Your task to perform on an android device: uninstall "Google Calendar" Image 0: 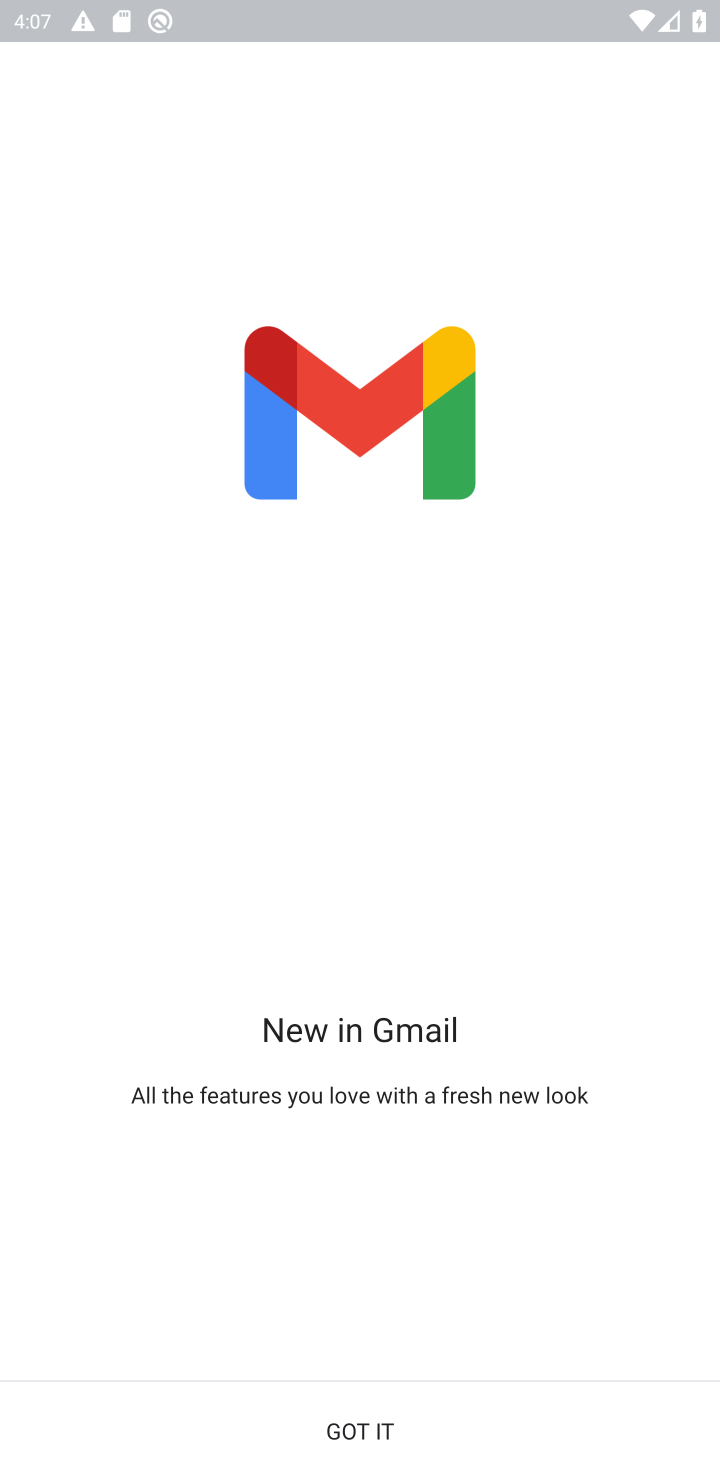
Step 0: press home button
Your task to perform on an android device: uninstall "Google Calendar" Image 1: 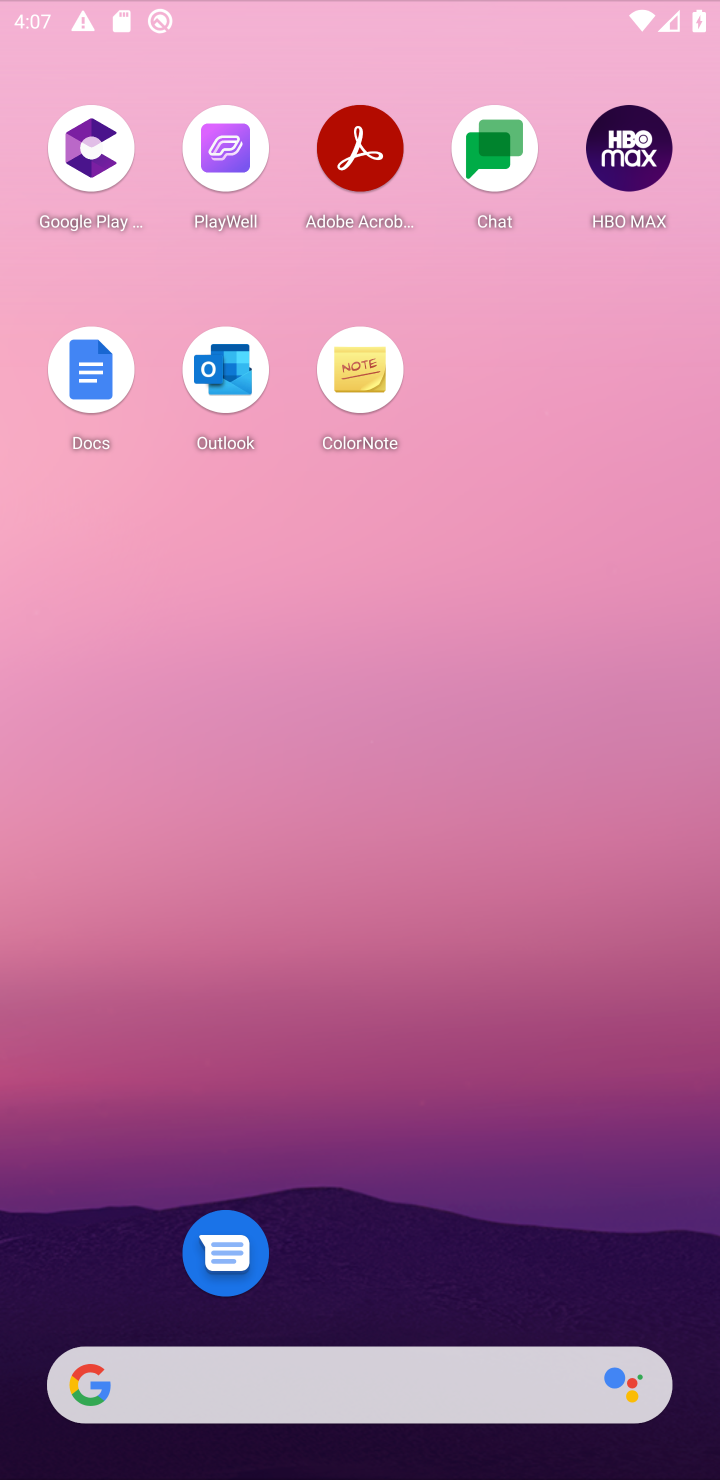
Step 1: drag from (321, 1008) to (330, 389)
Your task to perform on an android device: uninstall "Google Calendar" Image 2: 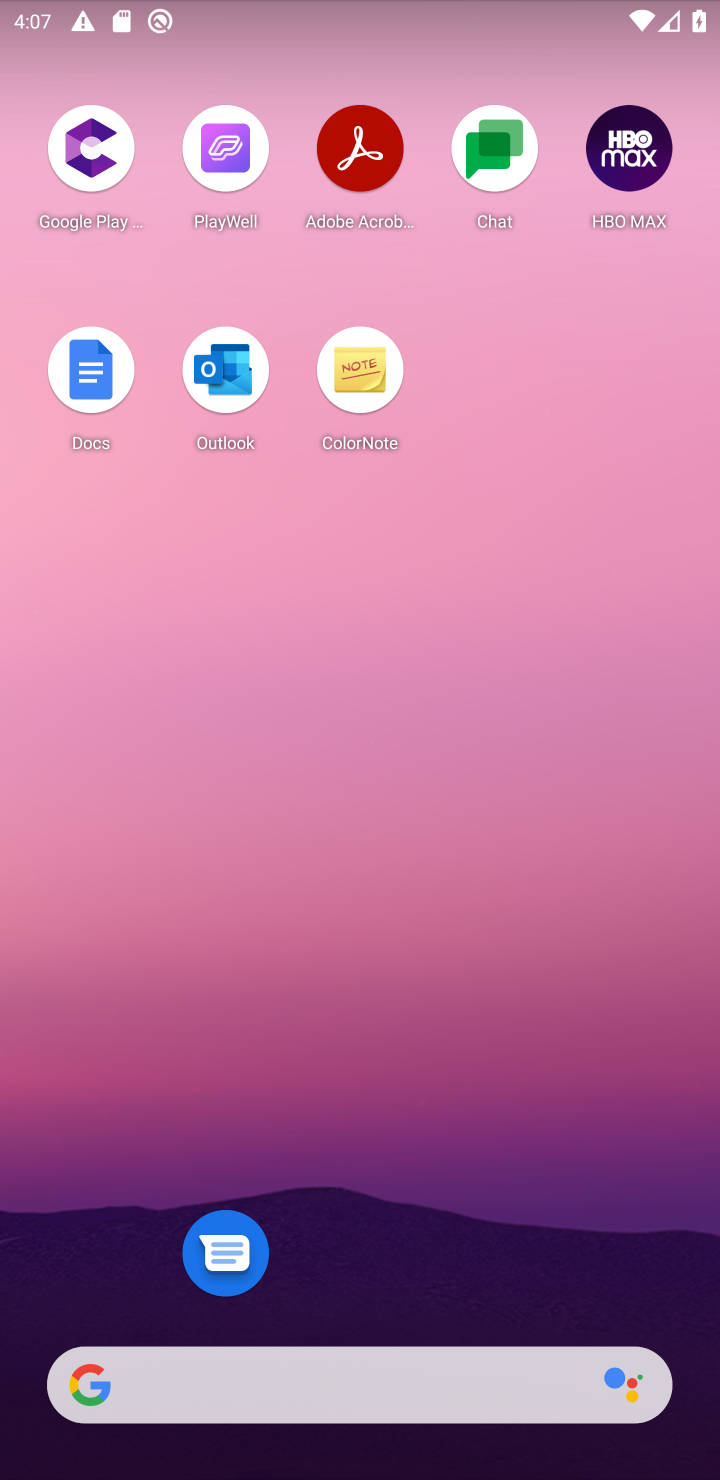
Step 2: drag from (344, 1357) to (386, 358)
Your task to perform on an android device: uninstall "Google Calendar" Image 3: 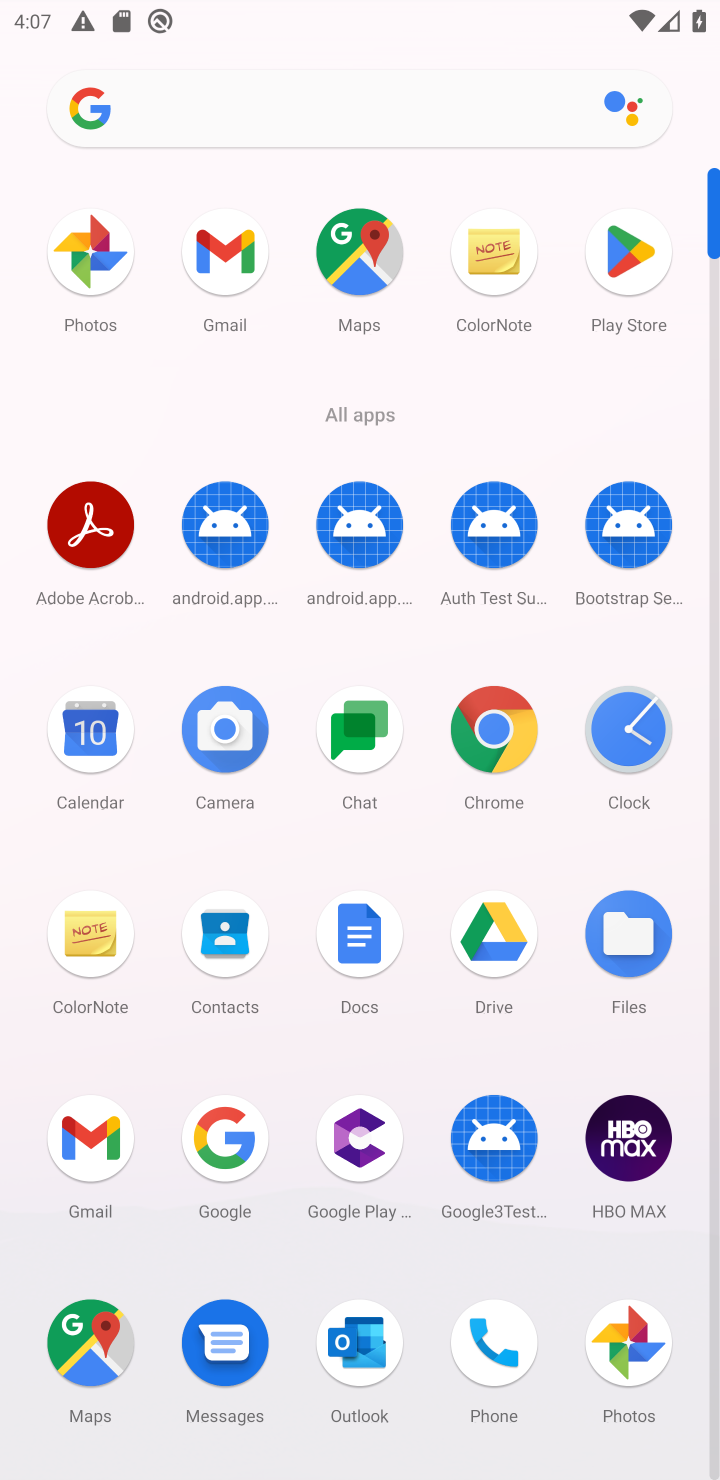
Step 3: click (636, 259)
Your task to perform on an android device: uninstall "Google Calendar" Image 4: 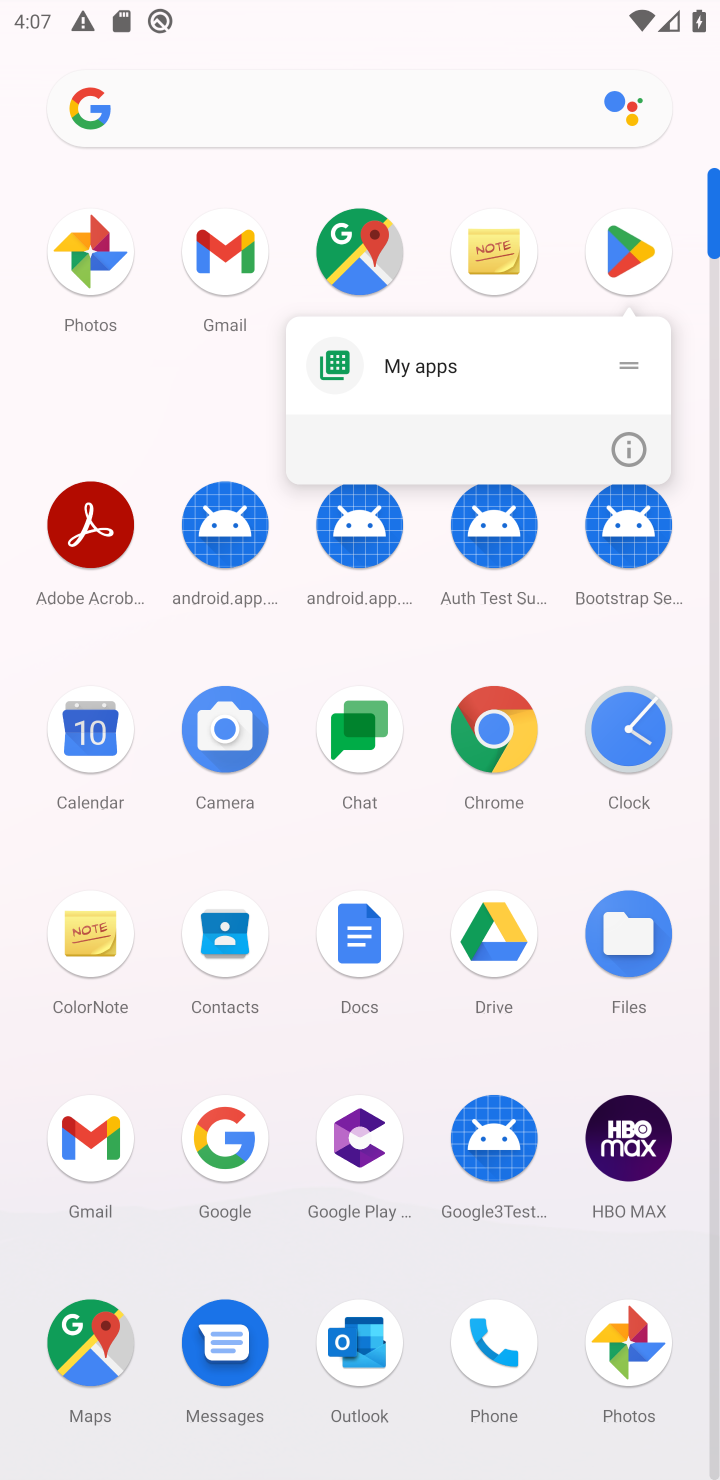
Step 4: click (636, 259)
Your task to perform on an android device: uninstall "Google Calendar" Image 5: 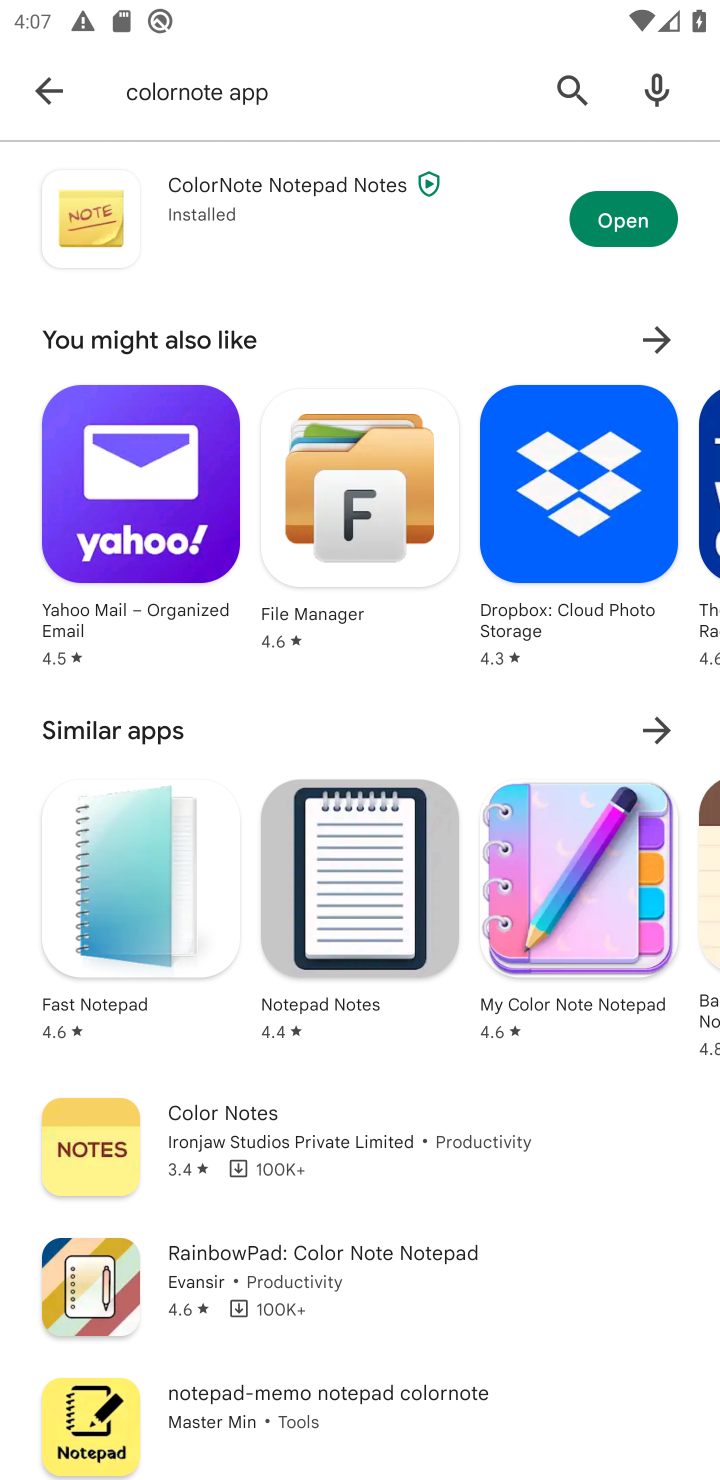
Step 5: click (53, 83)
Your task to perform on an android device: uninstall "Google Calendar" Image 6: 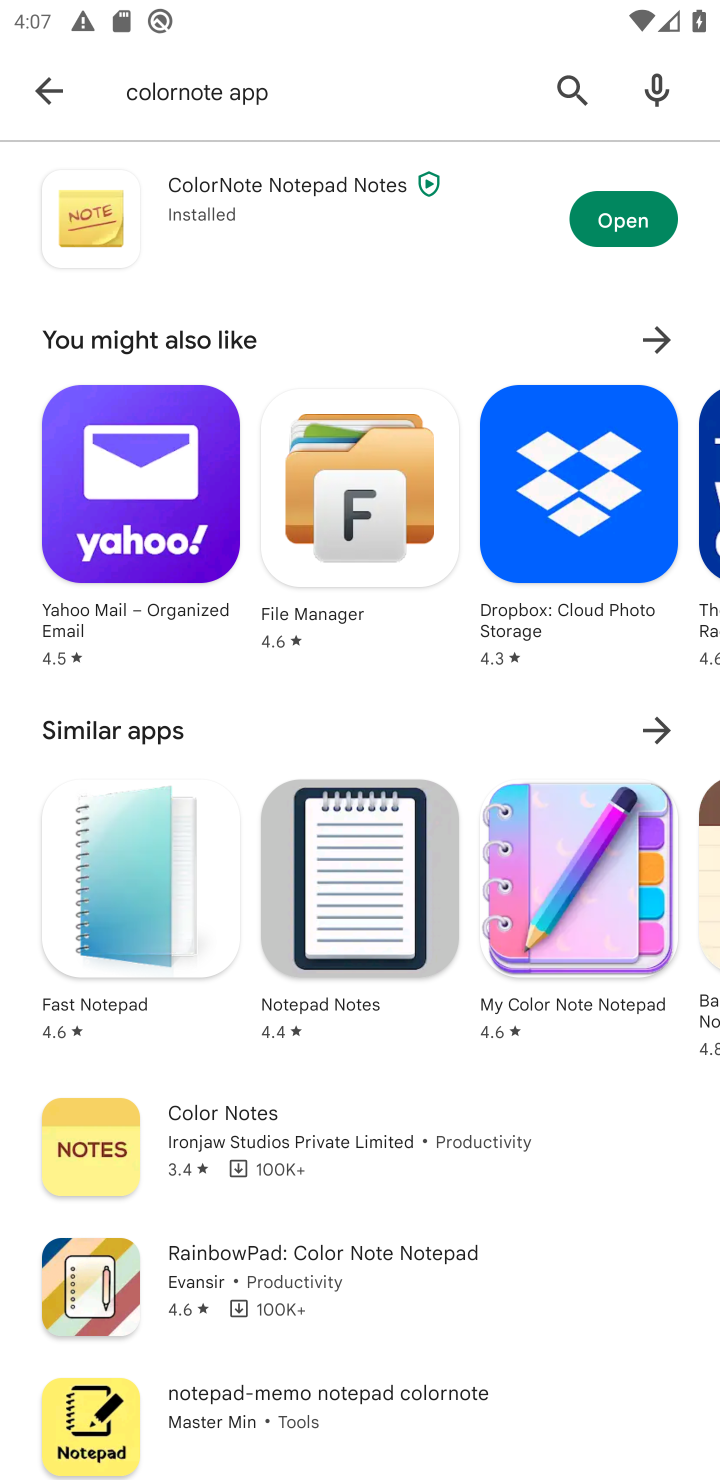
Step 6: click (61, 75)
Your task to perform on an android device: uninstall "Google Calendar" Image 7: 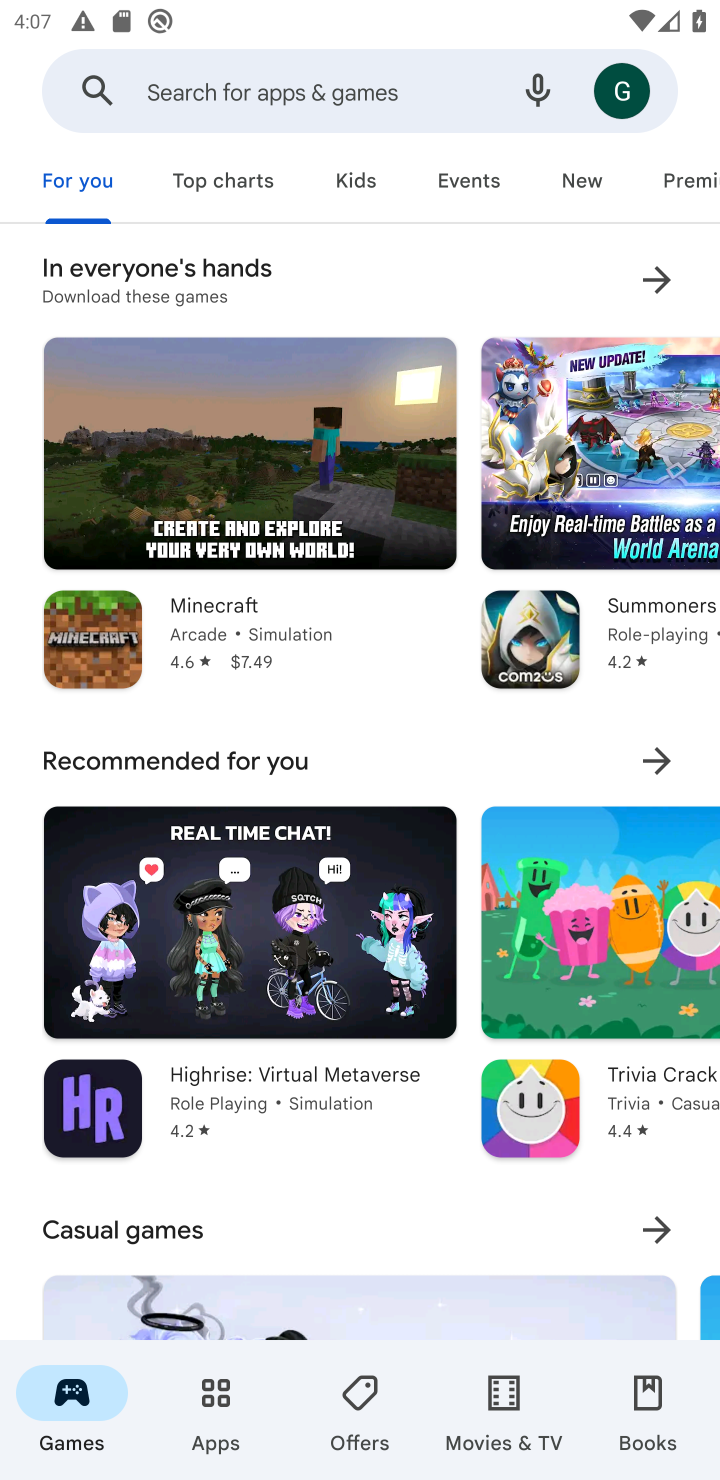
Step 7: click (267, 83)
Your task to perform on an android device: uninstall "Google Calendar" Image 8: 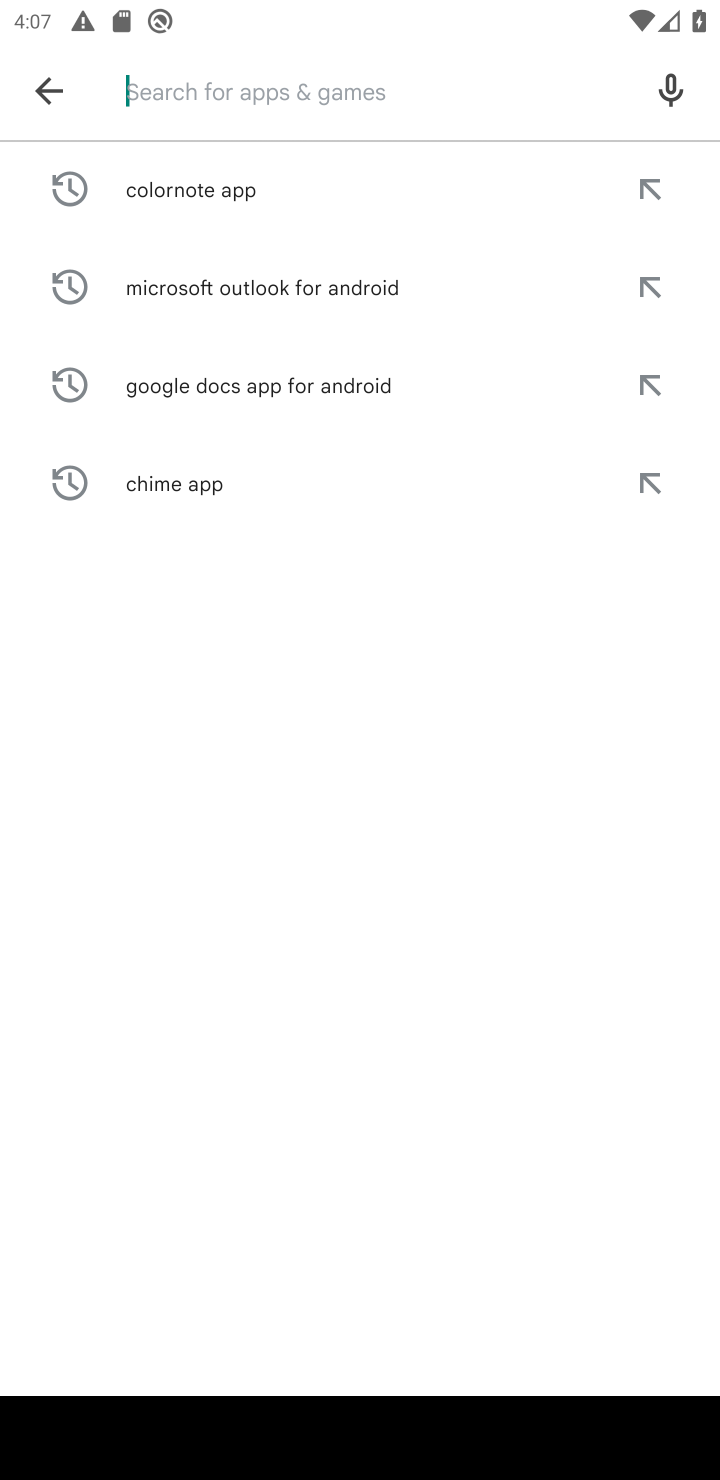
Step 8: click (298, 86)
Your task to perform on an android device: uninstall "Google Calendar" Image 9: 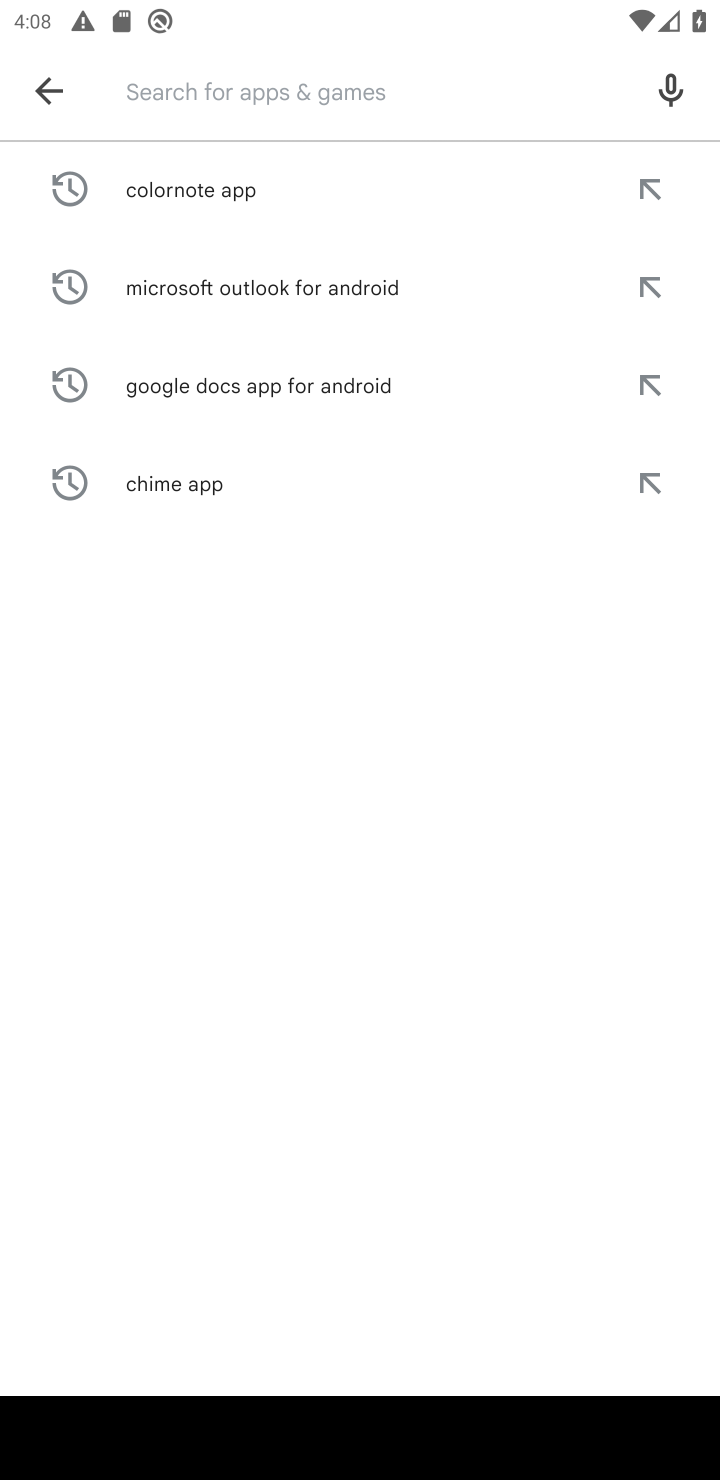
Step 9: type "calender"
Your task to perform on an android device: uninstall "Google Calendar" Image 10: 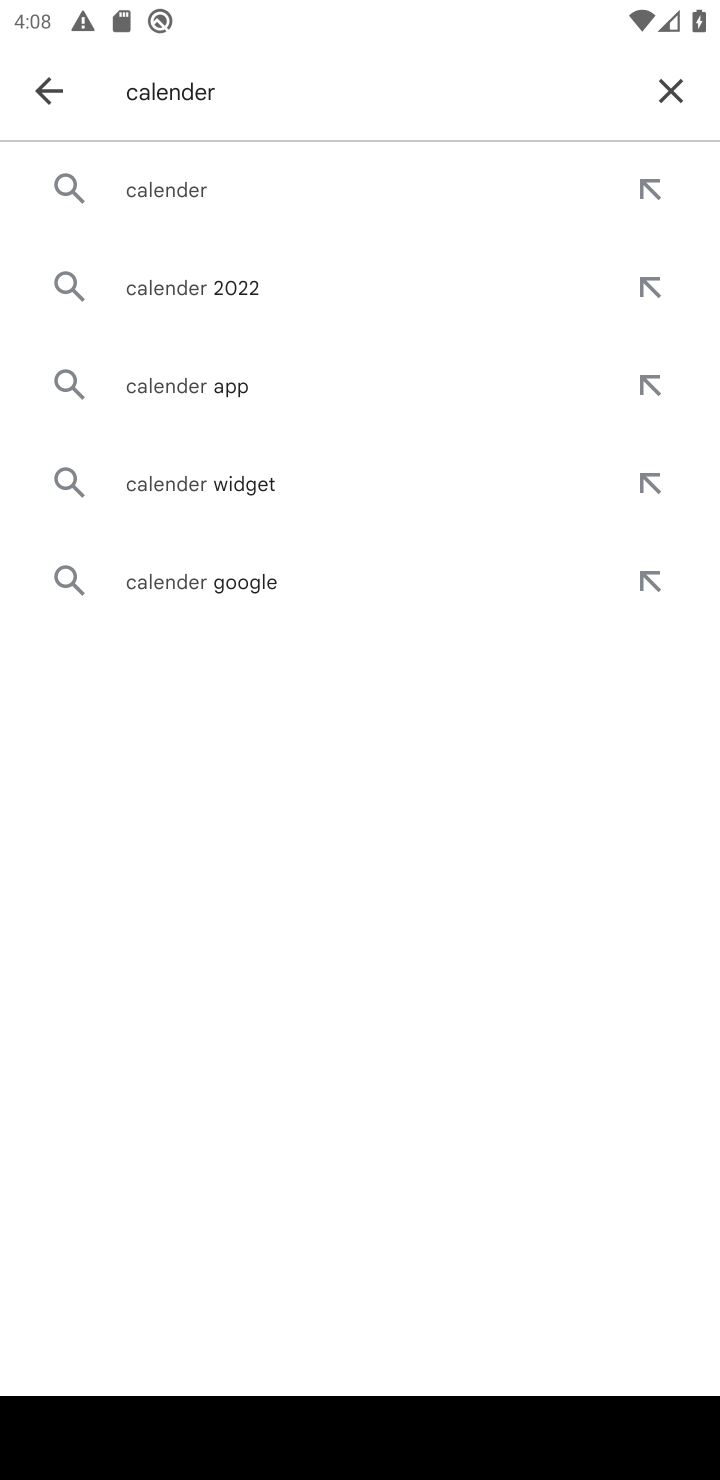
Step 10: click (214, 174)
Your task to perform on an android device: uninstall "Google Calendar" Image 11: 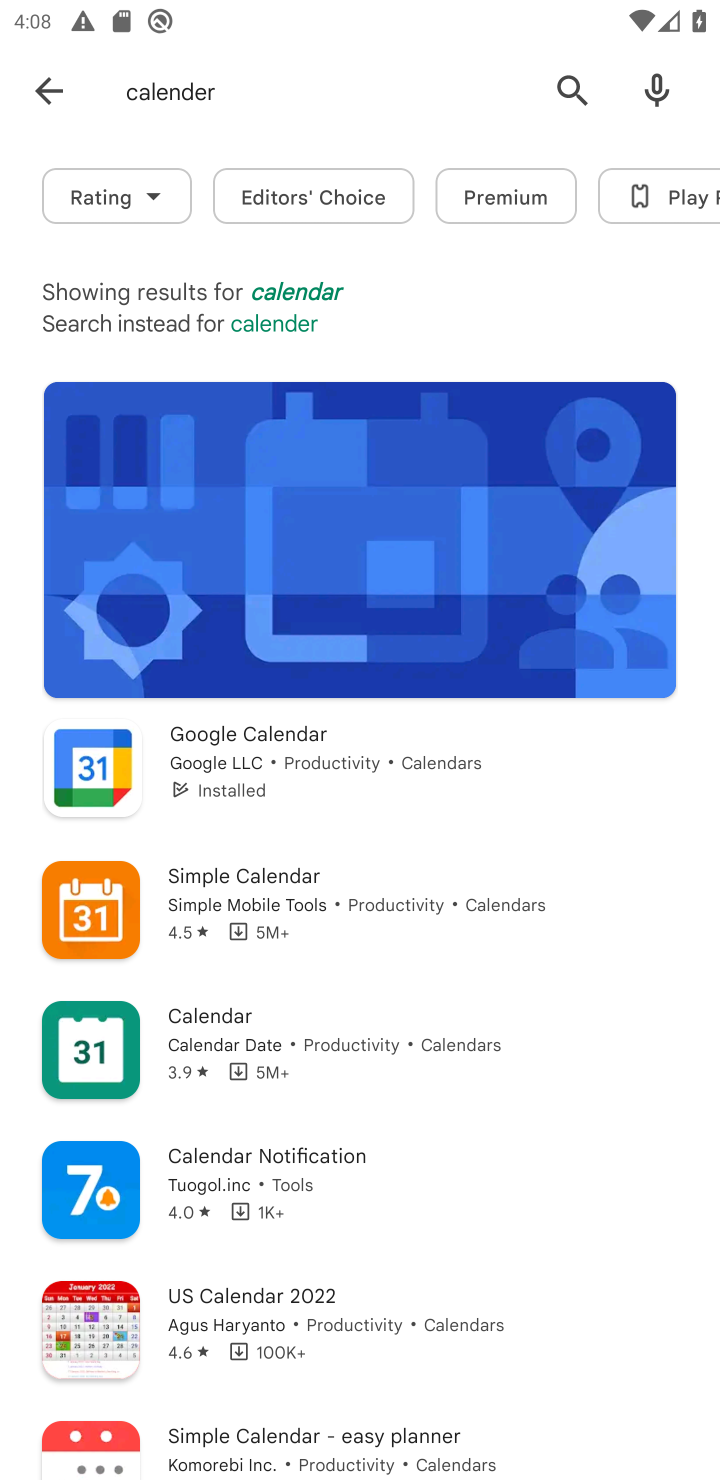
Step 11: click (280, 767)
Your task to perform on an android device: uninstall "Google Calendar" Image 12: 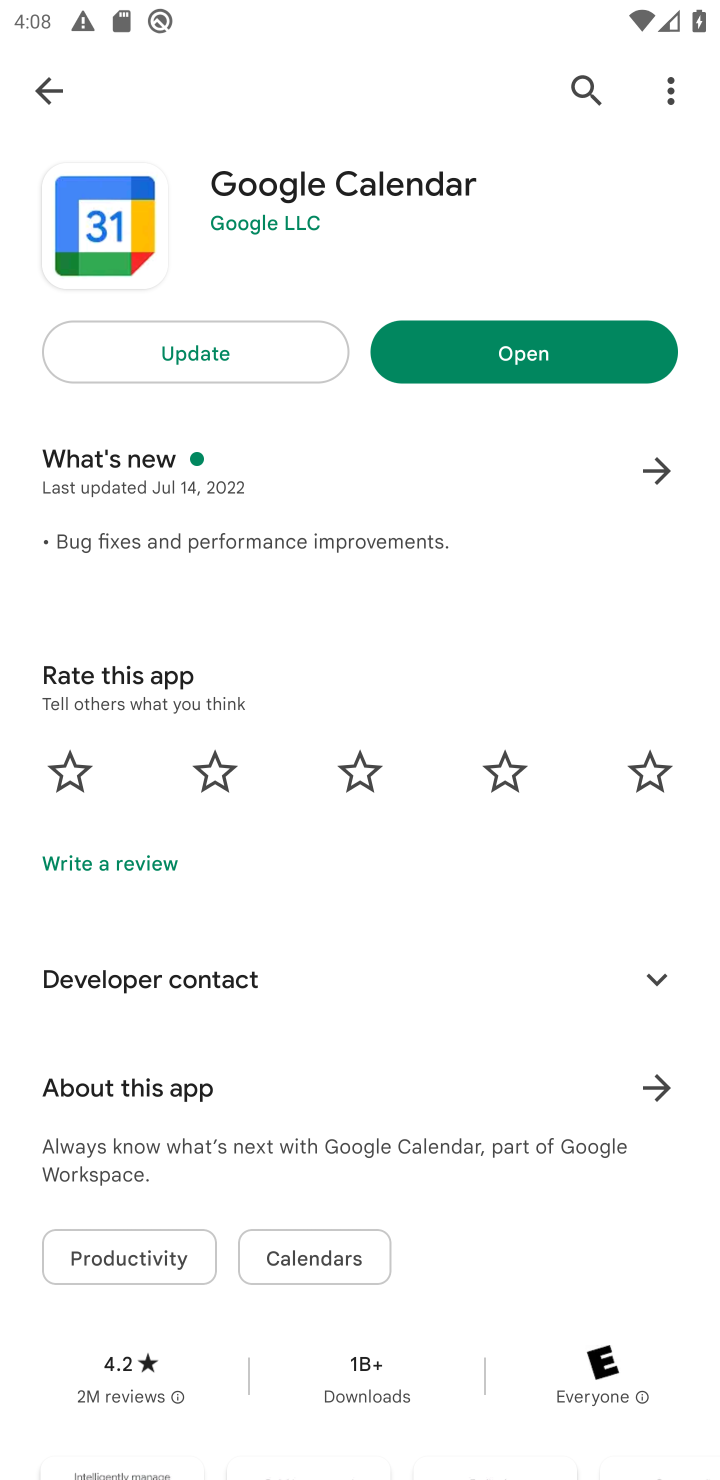
Step 12: click (228, 348)
Your task to perform on an android device: uninstall "Google Calendar" Image 13: 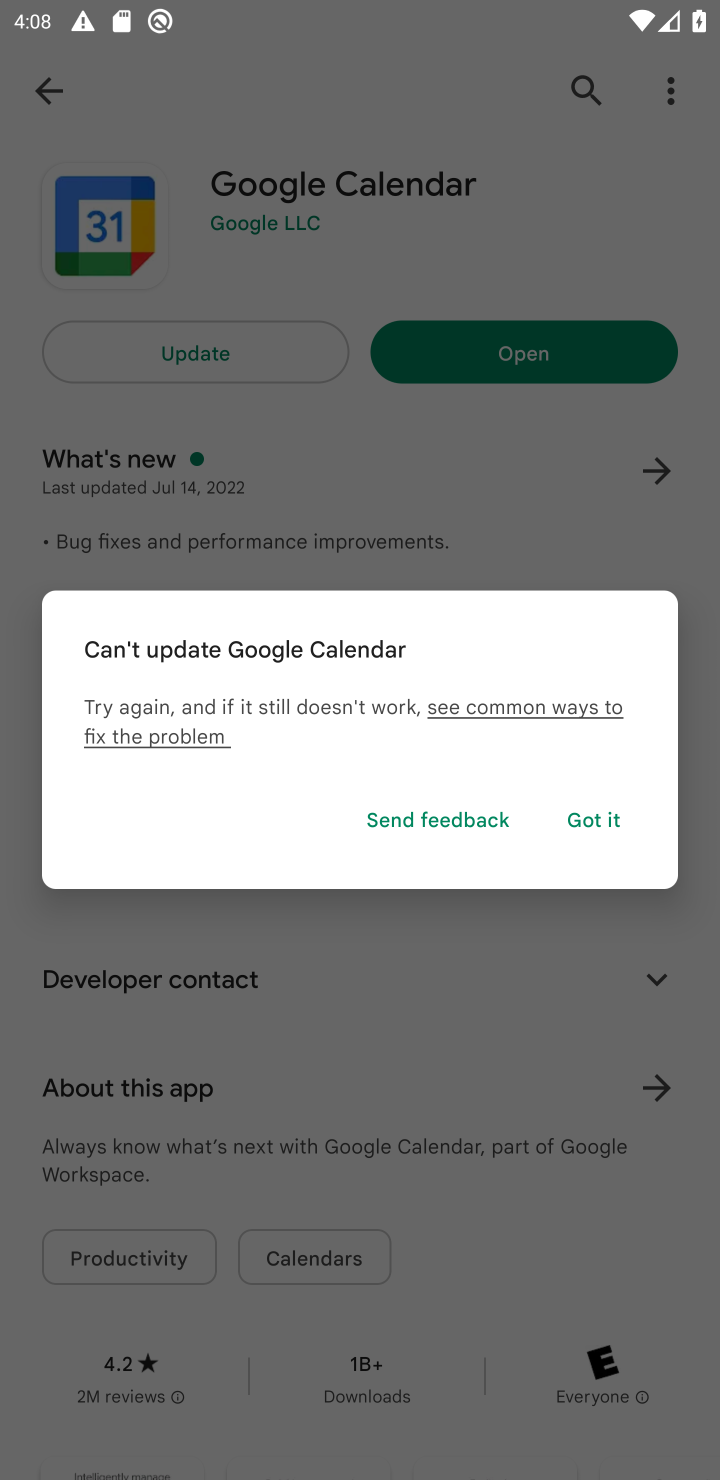
Step 13: click (572, 806)
Your task to perform on an android device: uninstall "Google Calendar" Image 14: 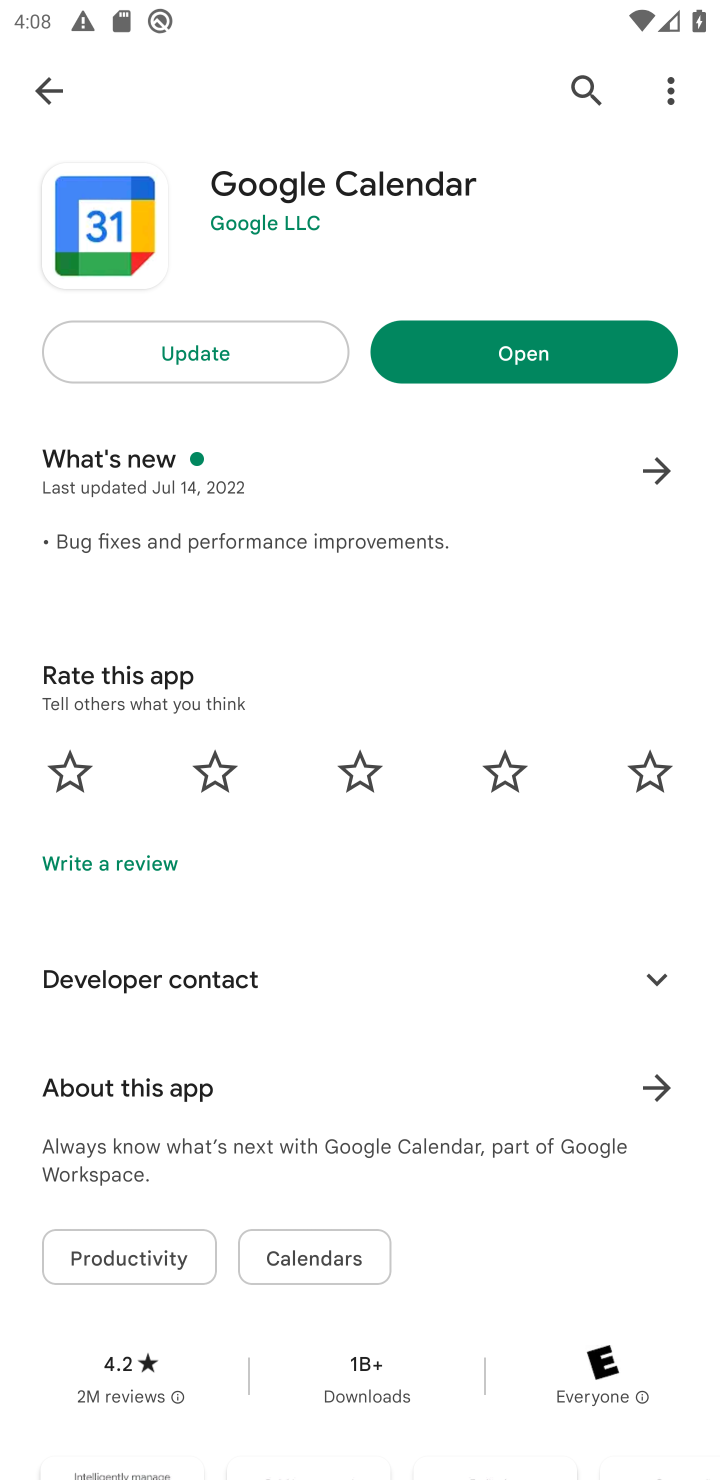
Step 14: click (263, 359)
Your task to perform on an android device: uninstall "Google Calendar" Image 15: 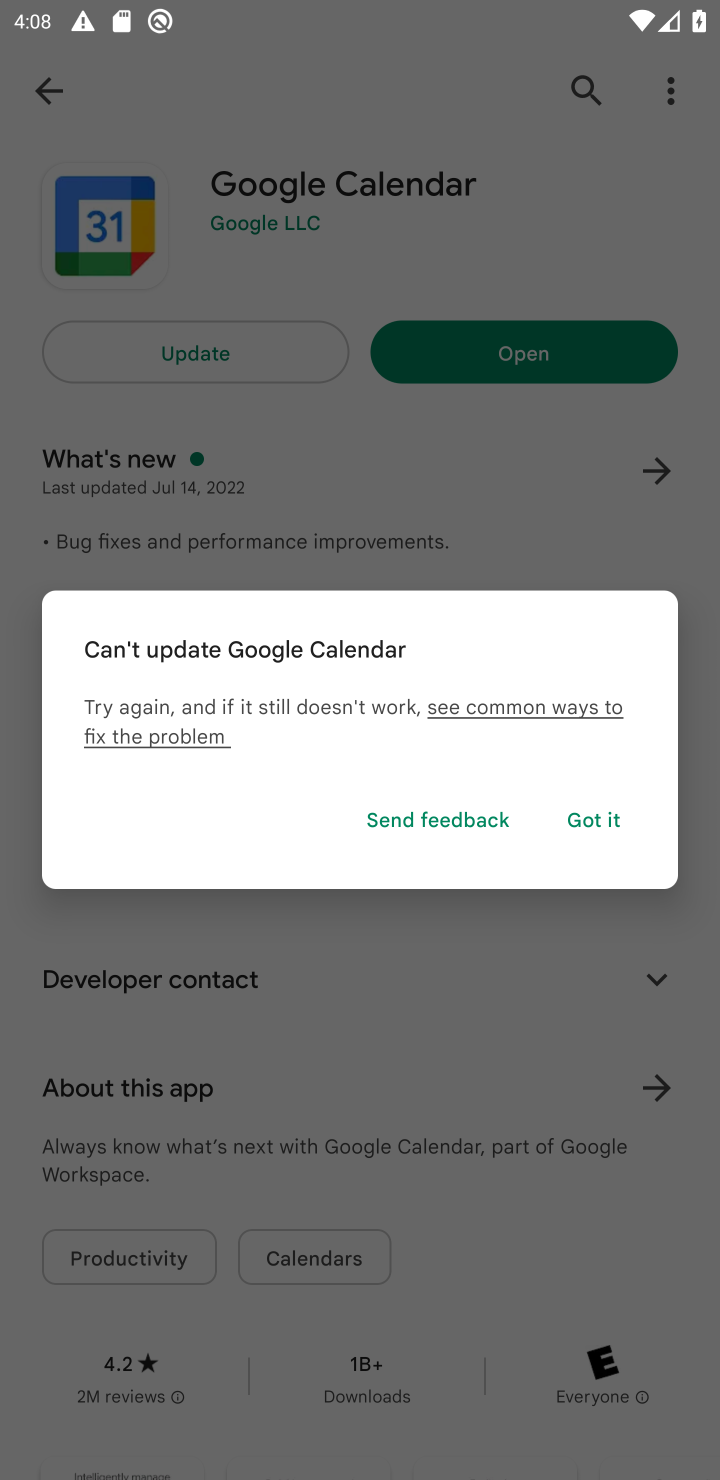
Step 15: click (475, 807)
Your task to perform on an android device: uninstall "Google Calendar" Image 16: 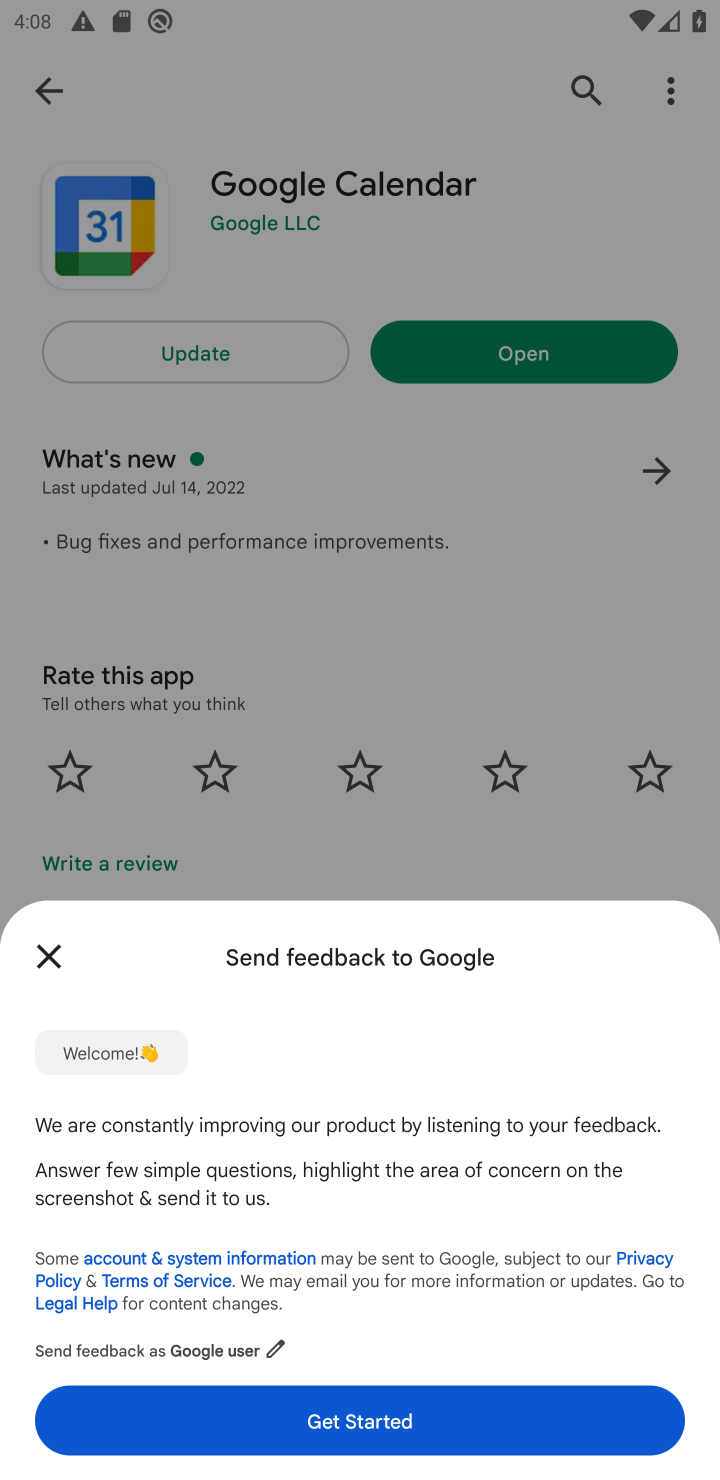
Step 16: click (48, 965)
Your task to perform on an android device: uninstall "Google Calendar" Image 17: 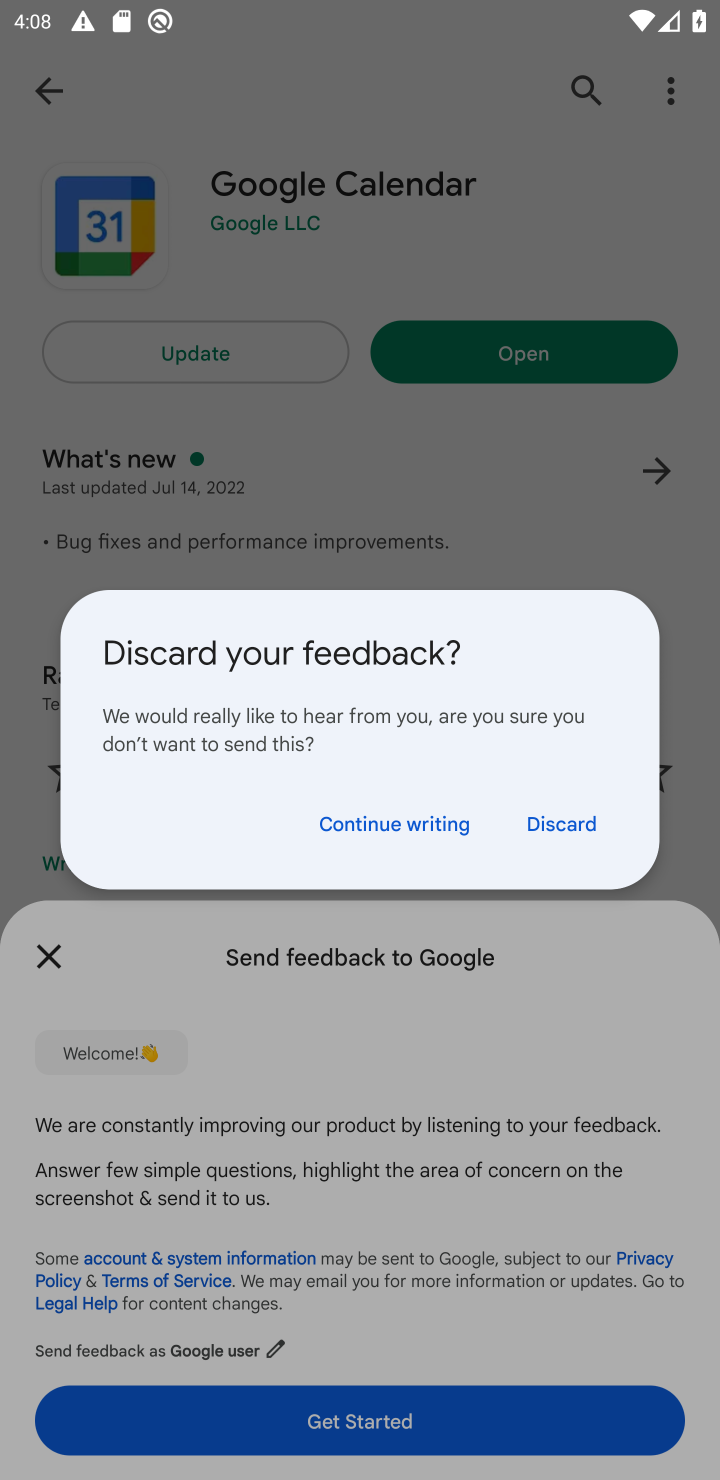
Step 17: click (517, 822)
Your task to perform on an android device: uninstall "Google Calendar" Image 18: 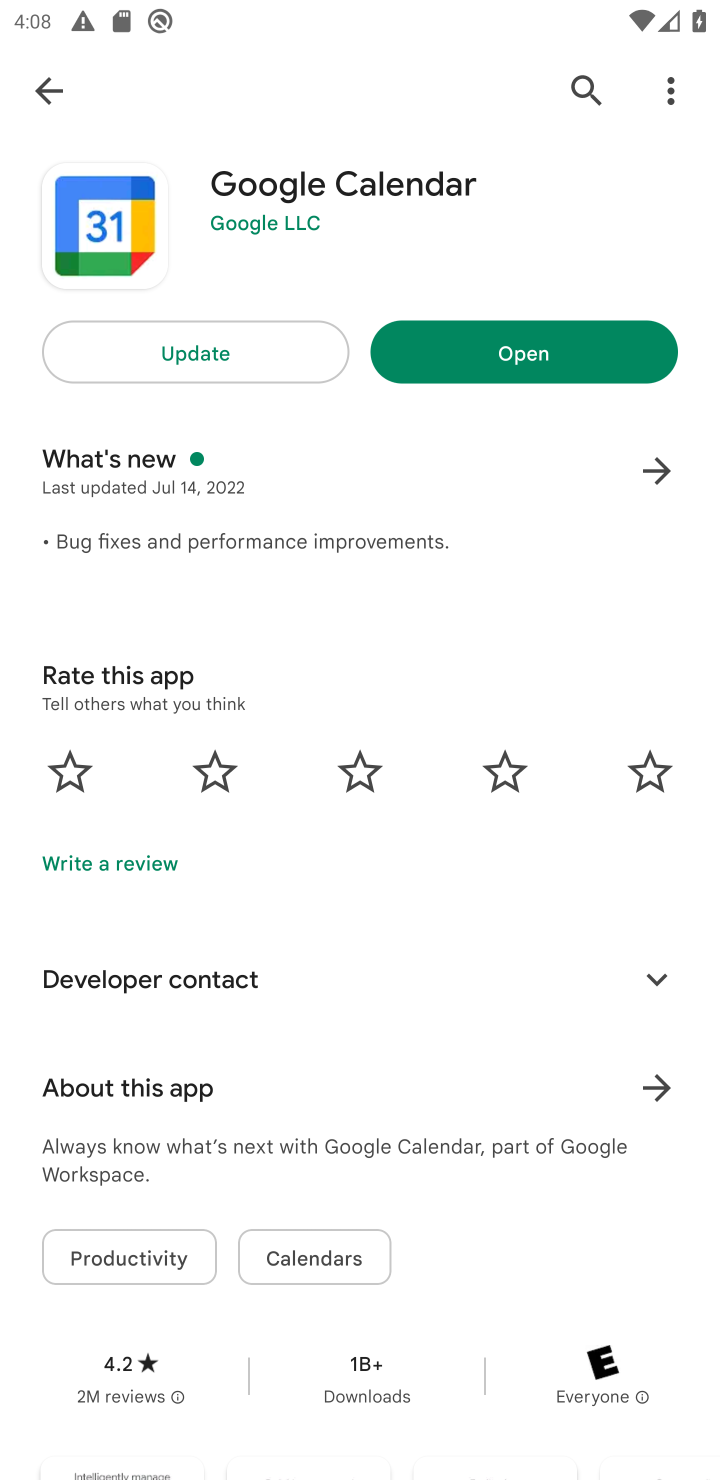
Step 18: task complete